Your task to perform on an android device: Go to Amazon Image 0: 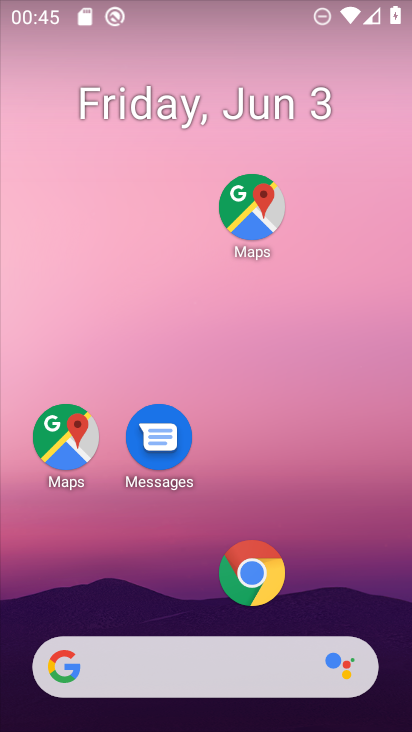
Step 0: click (256, 578)
Your task to perform on an android device: Go to Amazon Image 1: 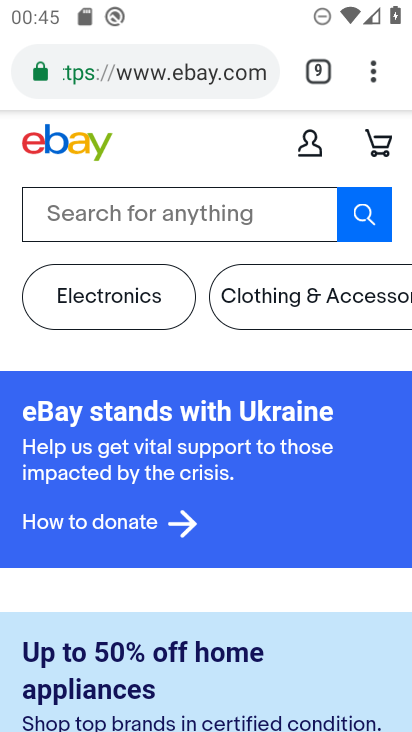
Step 1: click (323, 70)
Your task to perform on an android device: Go to Amazon Image 2: 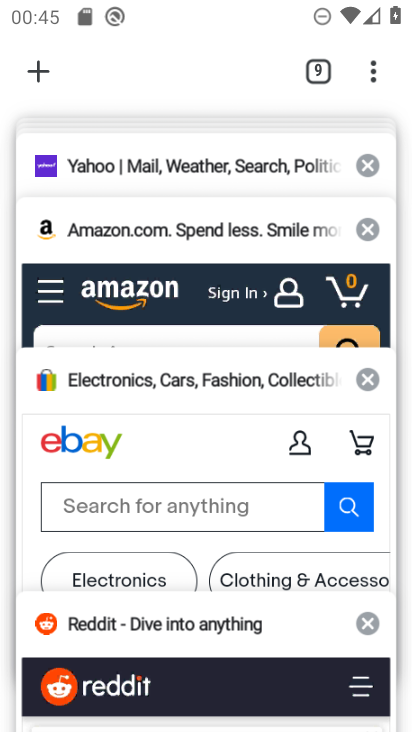
Step 2: click (222, 302)
Your task to perform on an android device: Go to Amazon Image 3: 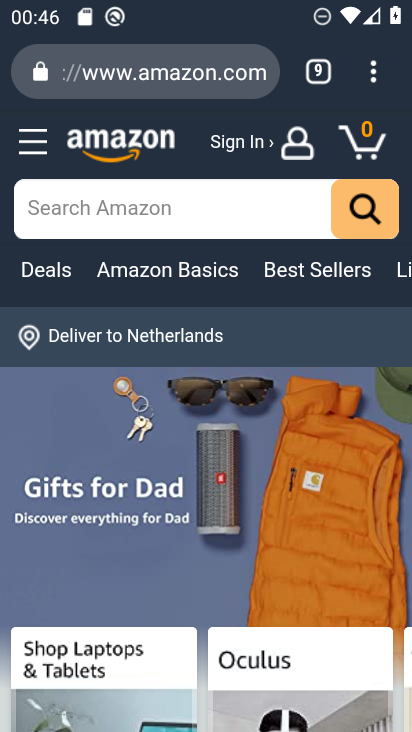
Step 3: task complete